Your task to perform on an android device: turn off location Image 0: 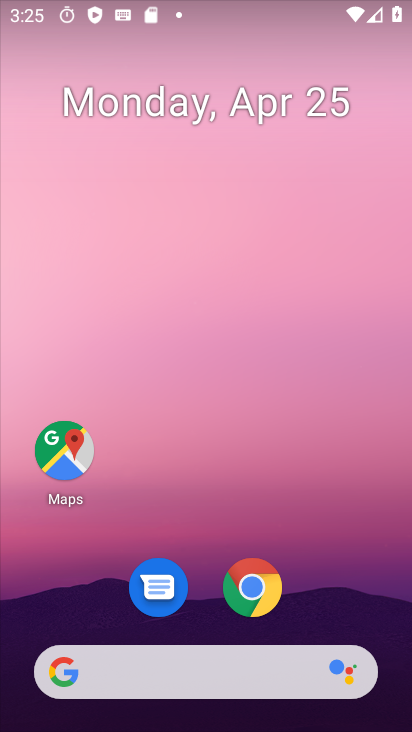
Step 0: drag from (317, 468) to (268, 78)
Your task to perform on an android device: turn off location Image 1: 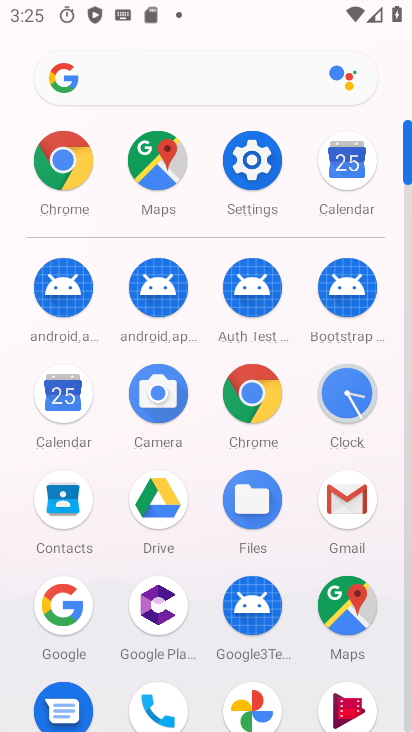
Step 1: click (261, 171)
Your task to perform on an android device: turn off location Image 2: 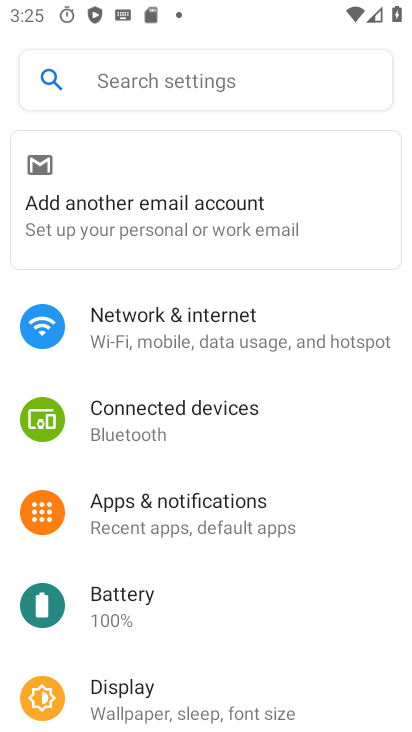
Step 2: drag from (287, 541) to (306, 16)
Your task to perform on an android device: turn off location Image 3: 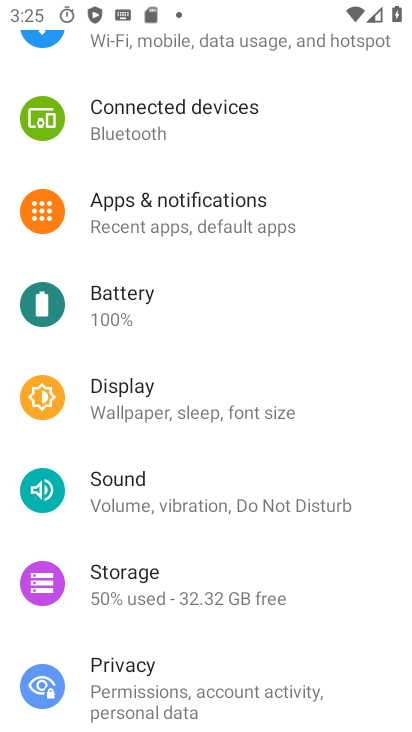
Step 3: drag from (210, 583) to (274, 104)
Your task to perform on an android device: turn off location Image 4: 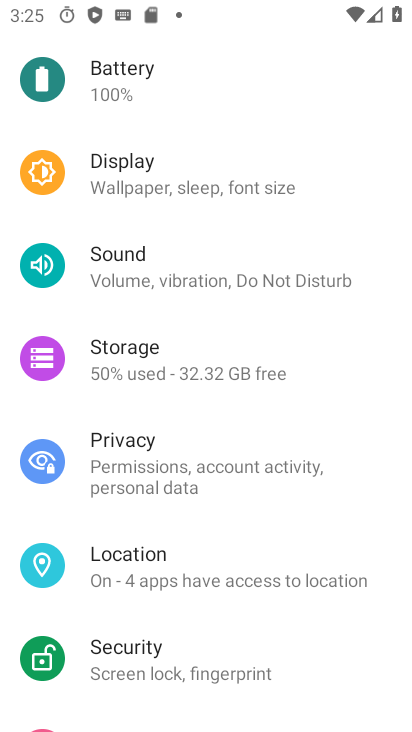
Step 4: click (191, 591)
Your task to perform on an android device: turn off location Image 5: 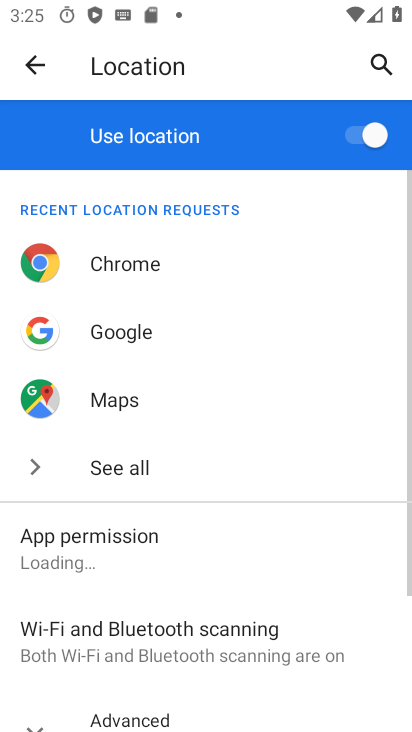
Step 5: click (367, 126)
Your task to perform on an android device: turn off location Image 6: 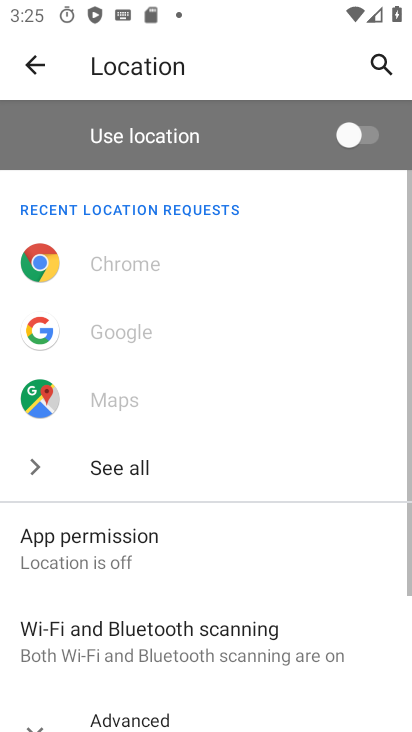
Step 6: task complete